Your task to perform on an android device: Open Google Maps and go to "Timeline" Image 0: 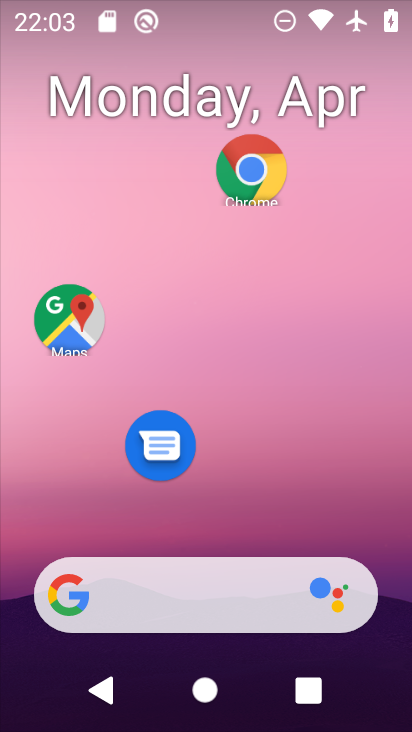
Step 0: click (89, 322)
Your task to perform on an android device: Open Google Maps and go to "Timeline" Image 1: 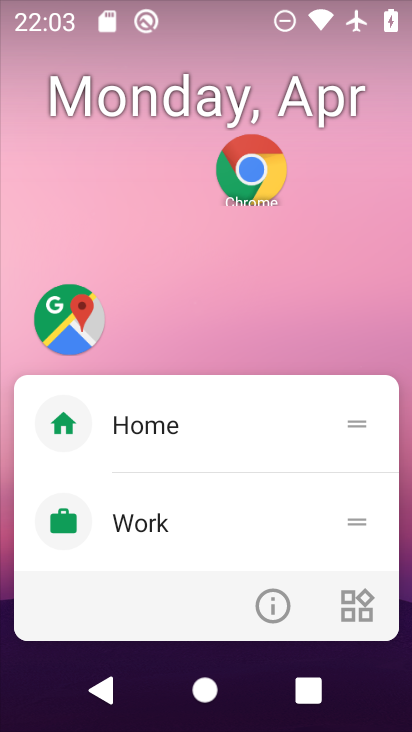
Step 1: click (66, 312)
Your task to perform on an android device: Open Google Maps and go to "Timeline" Image 2: 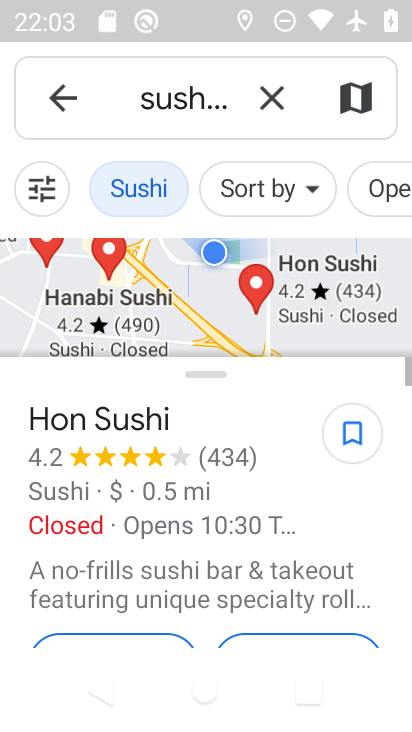
Step 2: click (79, 83)
Your task to perform on an android device: Open Google Maps and go to "Timeline" Image 3: 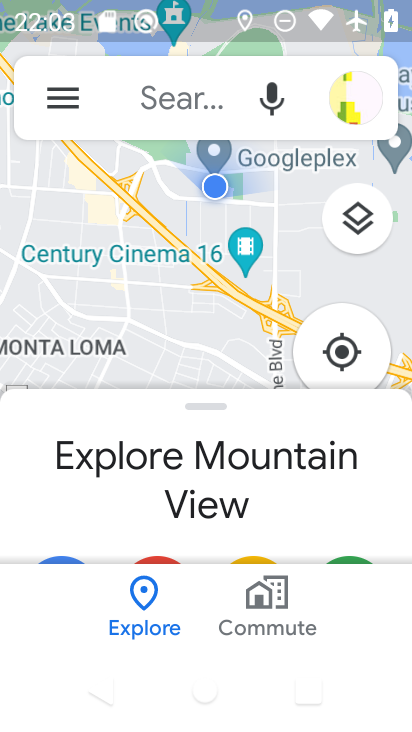
Step 3: click (78, 95)
Your task to perform on an android device: Open Google Maps and go to "Timeline" Image 4: 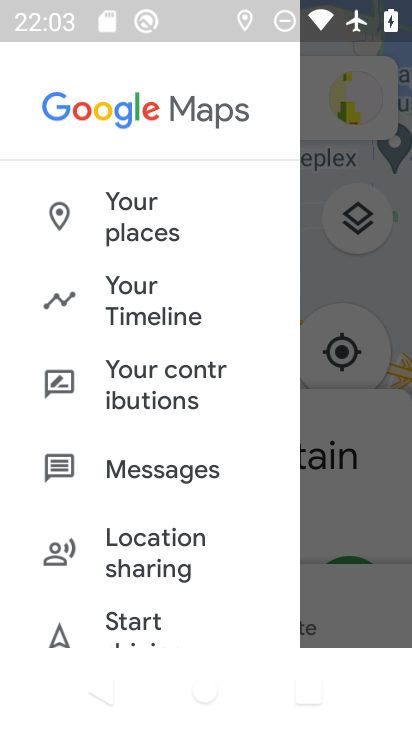
Step 4: click (159, 293)
Your task to perform on an android device: Open Google Maps and go to "Timeline" Image 5: 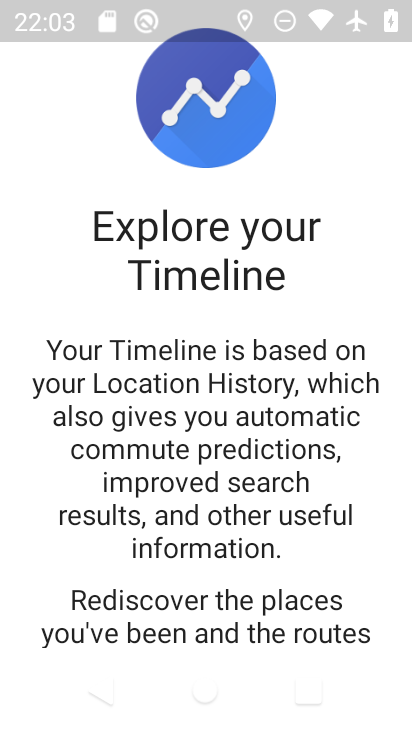
Step 5: drag from (270, 603) to (277, 191)
Your task to perform on an android device: Open Google Maps and go to "Timeline" Image 6: 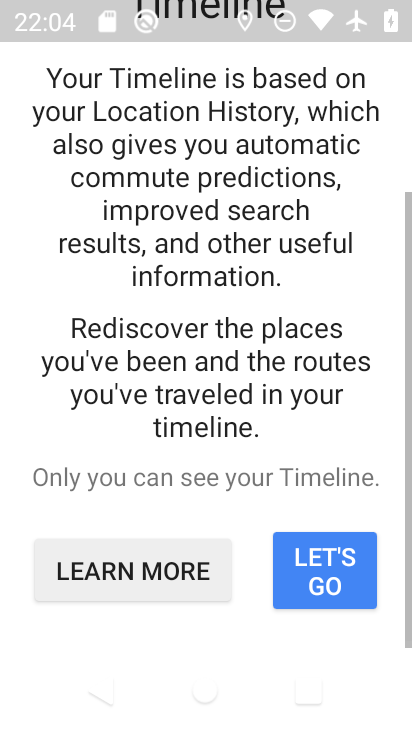
Step 6: click (343, 560)
Your task to perform on an android device: Open Google Maps and go to "Timeline" Image 7: 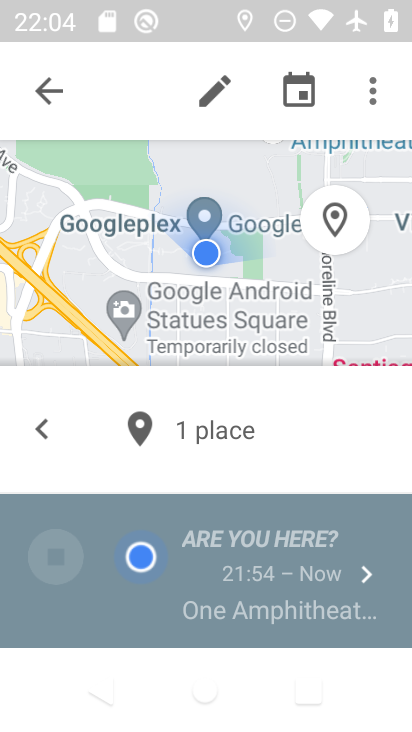
Step 7: click (376, 93)
Your task to perform on an android device: Open Google Maps and go to "Timeline" Image 8: 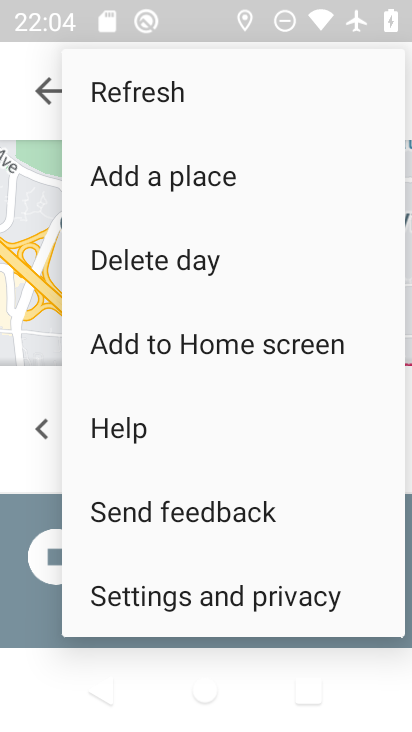
Step 8: click (36, 190)
Your task to perform on an android device: Open Google Maps and go to "Timeline" Image 9: 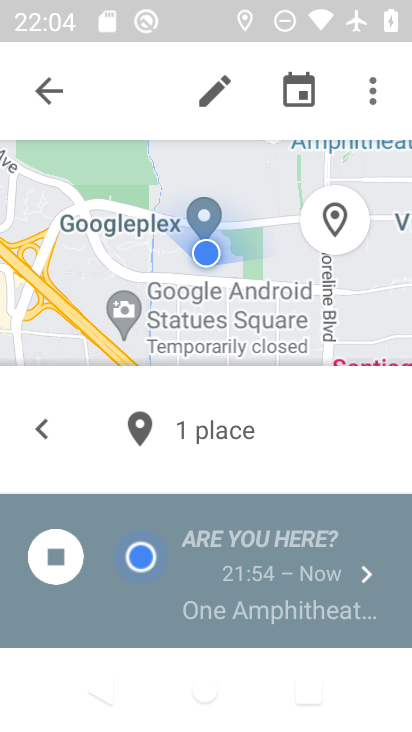
Step 9: task complete